Your task to perform on an android device: all mails in gmail Image 0: 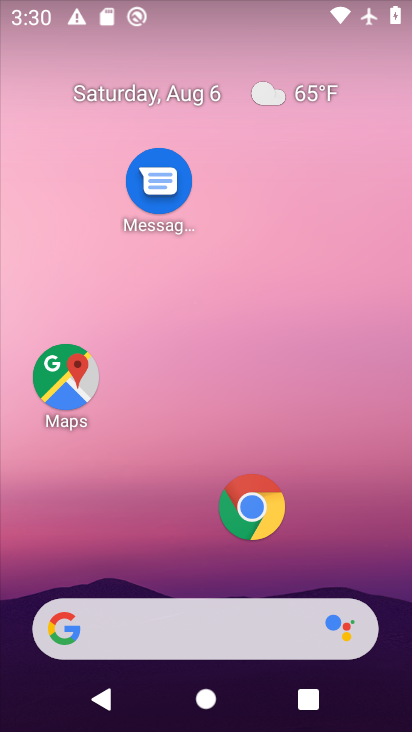
Step 0: drag from (171, 499) to (189, 166)
Your task to perform on an android device: all mails in gmail Image 1: 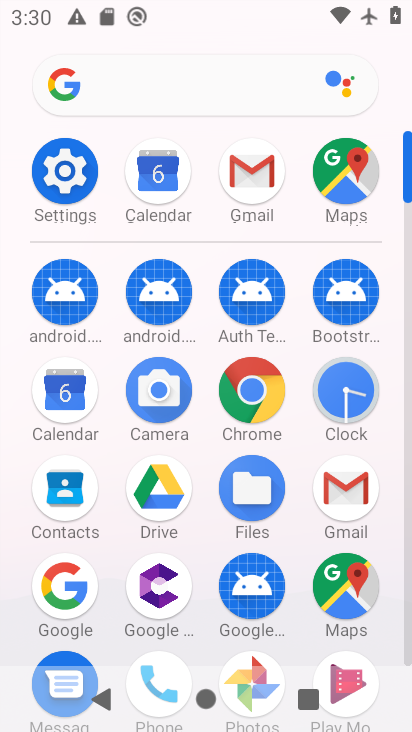
Step 1: click (337, 505)
Your task to perform on an android device: all mails in gmail Image 2: 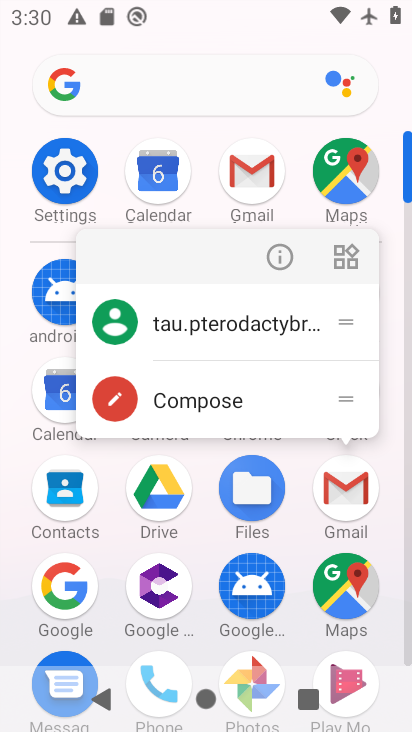
Step 2: click (341, 508)
Your task to perform on an android device: all mails in gmail Image 3: 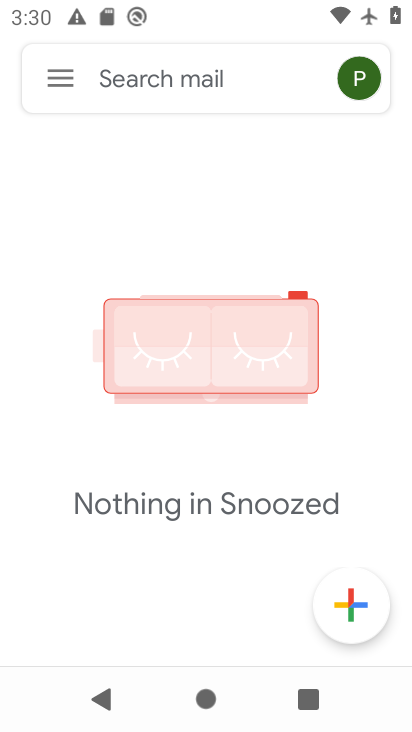
Step 3: click (65, 75)
Your task to perform on an android device: all mails in gmail Image 4: 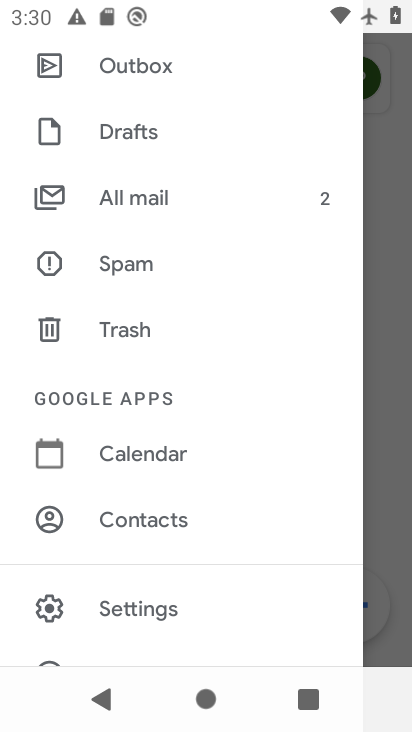
Step 4: click (147, 210)
Your task to perform on an android device: all mails in gmail Image 5: 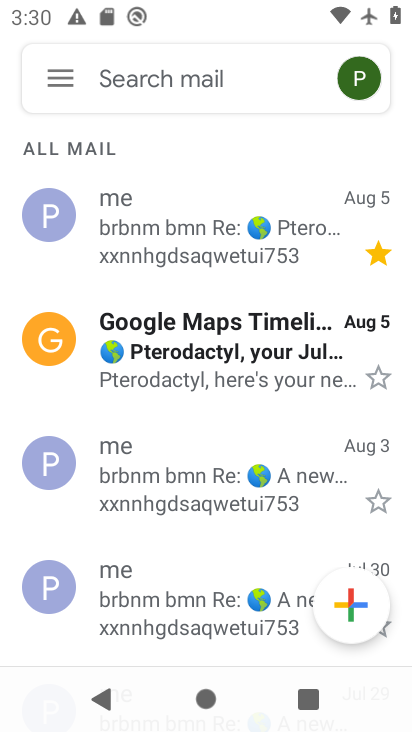
Step 5: task complete